Your task to perform on an android device: turn off notifications settings in the gmail app Image 0: 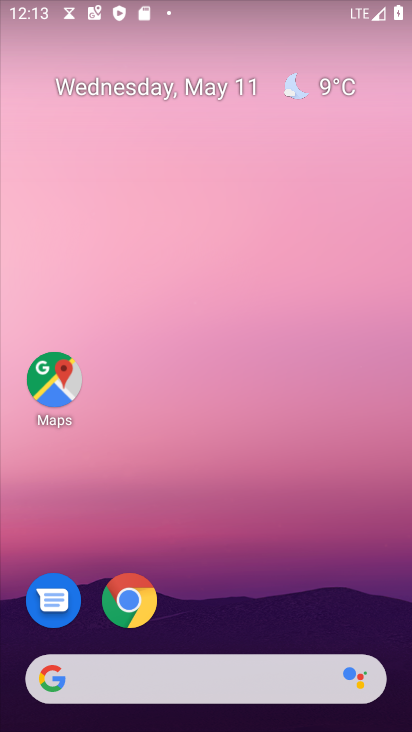
Step 0: drag from (229, 576) to (210, 117)
Your task to perform on an android device: turn off notifications settings in the gmail app Image 1: 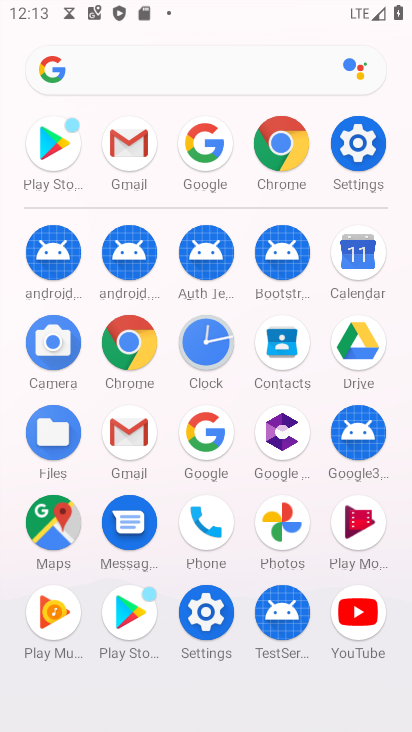
Step 1: click (125, 442)
Your task to perform on an android device: turn off notifications settings in the gmail app Image 2: 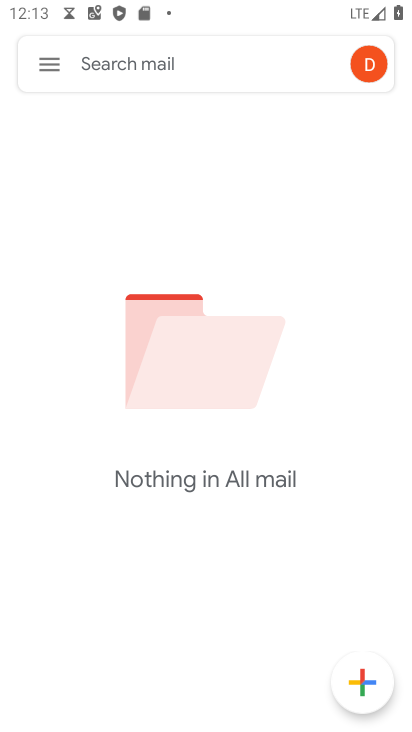
Step 2: click (44, 59)
Your task to perform on an android device: turn off notifications settings in the gmail app Image 3: 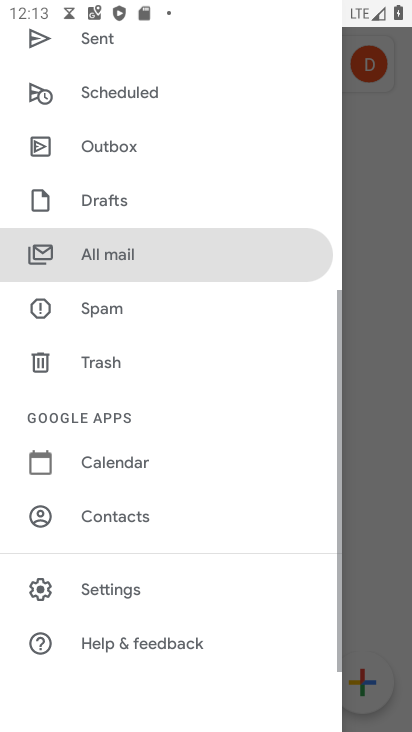
Step 3: click (144, 587)
Your task to perform on an android device: turn off notifications settings in the gmail app Image 4: 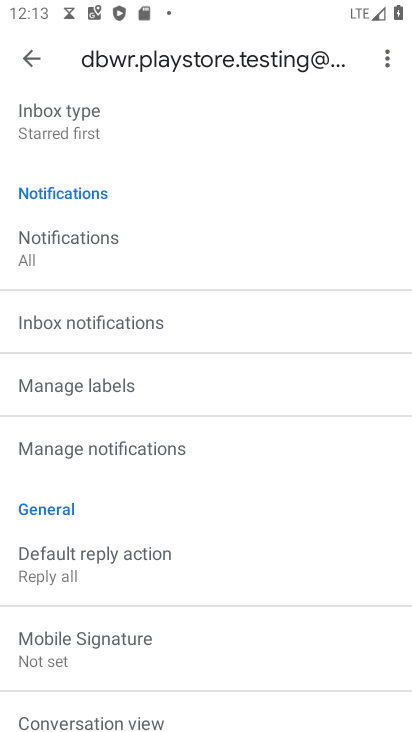
Step 4: click (105, 261)
Your task to perform on an android device: turn off notifications settings in the gmail app Image 5: 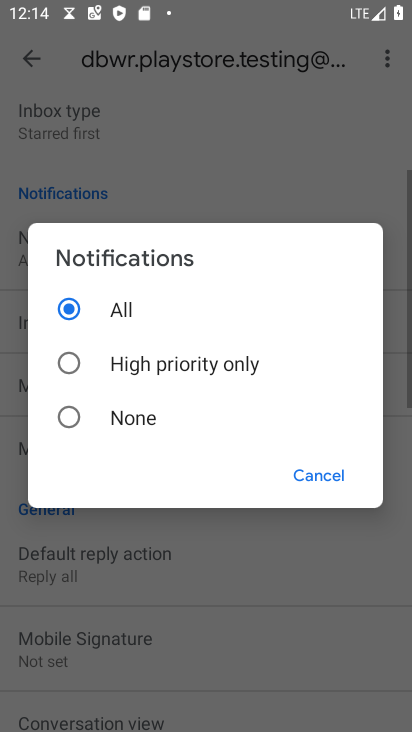
Step 5: click (141, 418)
Your task to perform on an android device: turn off notifications settings in the gmail app Image 6: 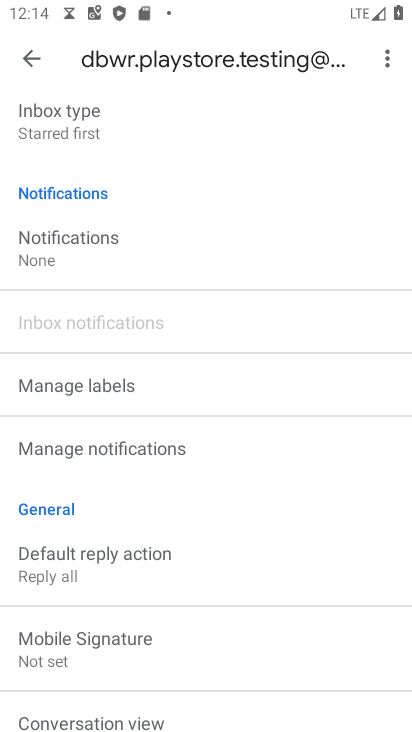
Step 6: task complete